Your task to perform on an android device: Open settings Image 0: 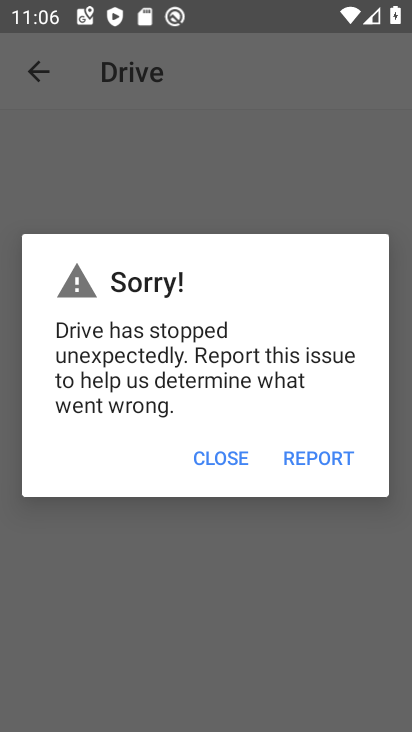
Step 0: press home button
Your task to perform on an android device: Open settings Image 1: 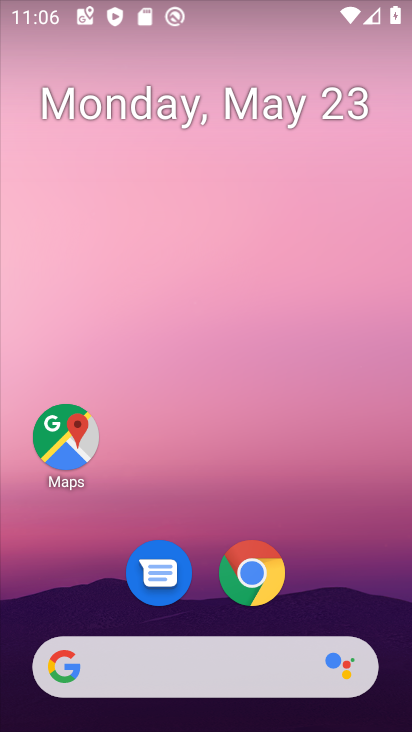
Step 1: drag from (206, 632) to (219, 288)
Your task to perform on an android device: Open settings Image 2: 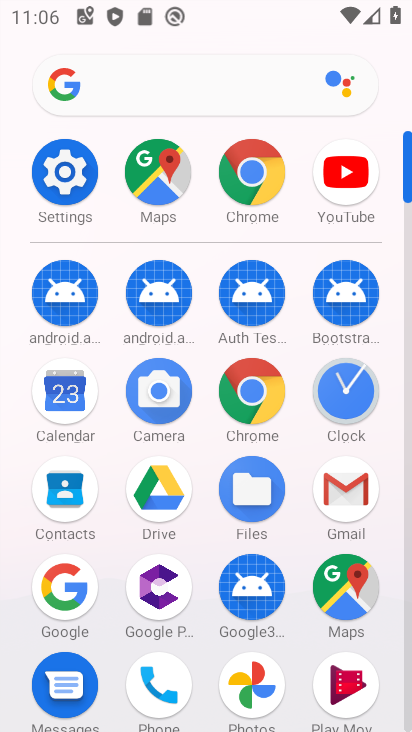
Step 2: click (77, 168)
Your task to perform on an android device: Open settings Image 3: 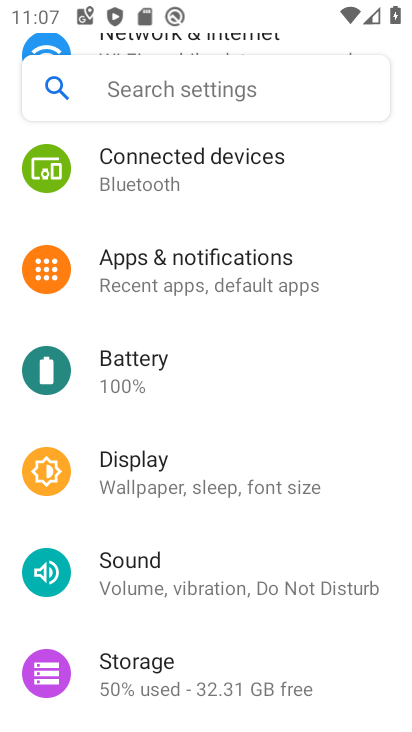
Step 3: task complete